Your task to perform on an android device: uninstall "eBay: The shopping marketplace" Image 0: 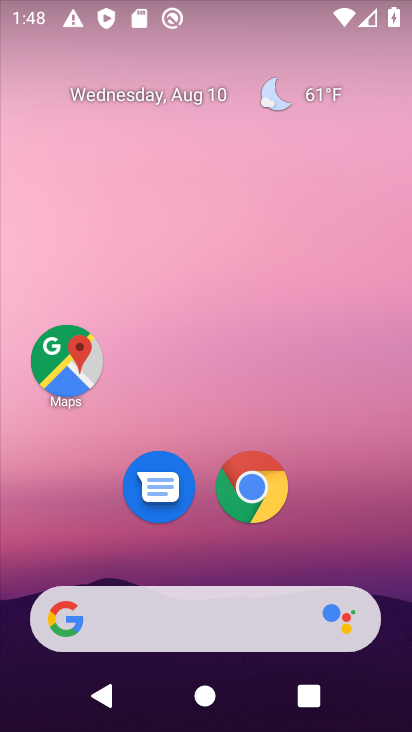
Step 0: drag from (195, 589) to (123, 110)
Your task to perform on an android device: uninstall "eBay: The shopping marketplace" Image 1: 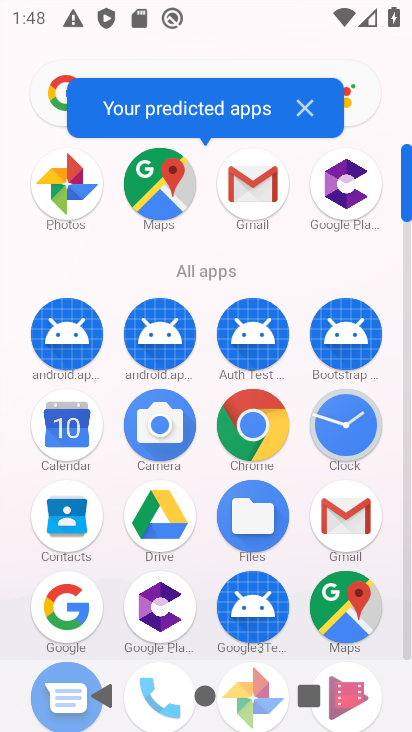
Step 1: press home button
Your task to perform on an android device: uninstall "eBay: The shopping marketplace" Image 2: 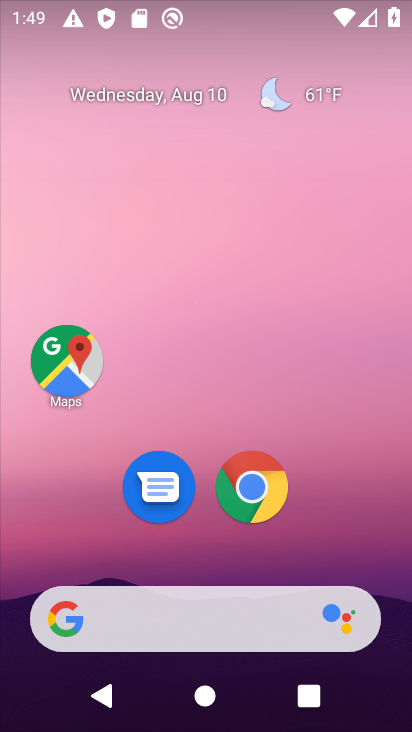
Step 2: drag from (169, 592) to (114, 288)
Your task to perform on an android device: uninstall "eBay: The shopping marketplace" Image 3: 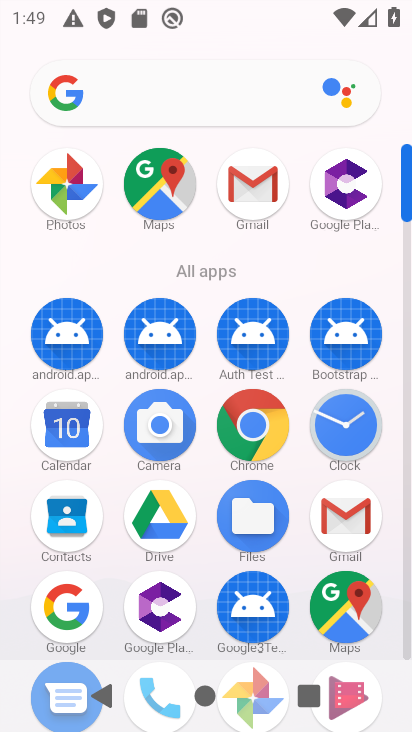
Step 3: drag from (130, 555) to (112, 247)
Your task to perform on an android device: uninstall "eBay: The shopping marketplace" Image 4: 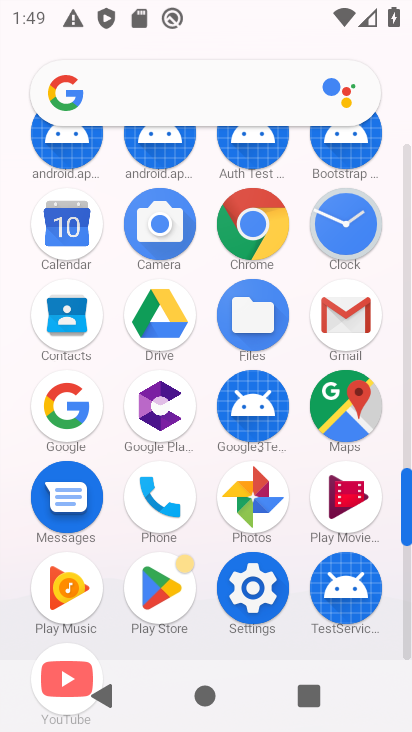
Step 4: click (163, 596)
Your task to perform on an android device: uninstall "eBay: The shopping marketplace" Image 5: 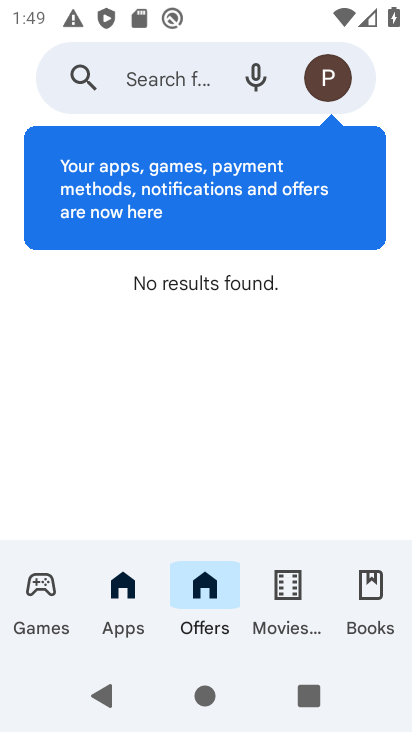
Step 5: click (122, 84)
Your task to perform on an android device: uninstall "eBay: The shopping marketplace" Image 6: 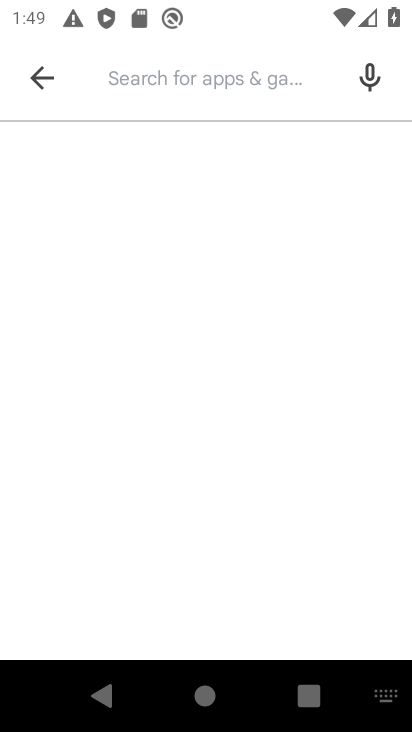
Step 6: type "eBay:"
Your task to perform on an android device: uninstall "eBay: The shopping marketplace" Image 7: 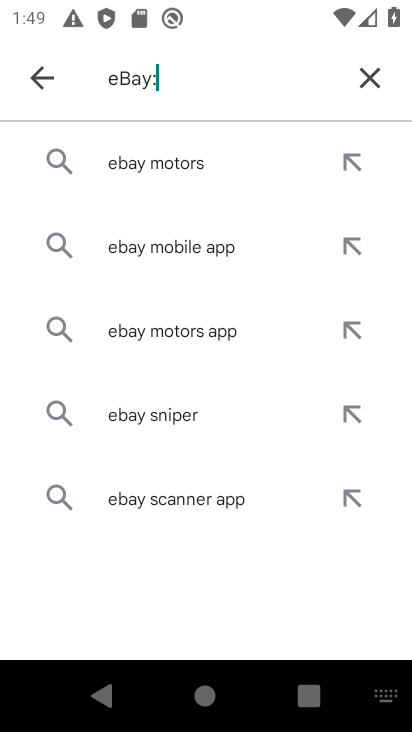
Step 7: task complete